Your task to perform on an android device: turn on priority inbox in the gmail app Image 0: 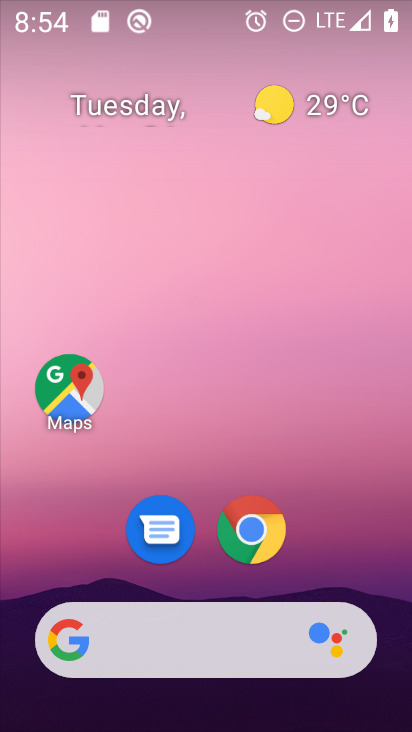
Step 0: drag from (392, 628) to (284, 21)
Your task to perform on an android device: turn on priority inbox in the gmail app Image 1: 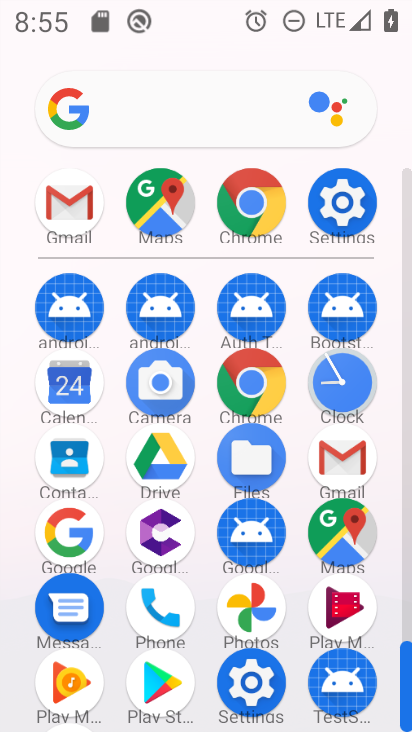
Step 1: click (338, 445)
Your task to perform on an android device: turn on priority inbox in the gmail app Image 2: 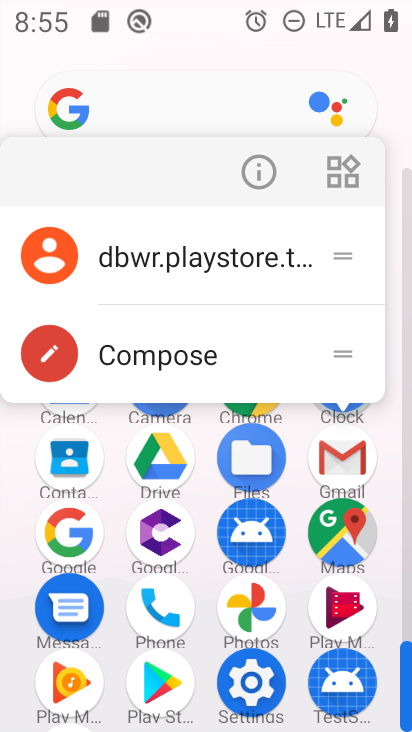
Step 2: click (334, 447)
Your task to perform on an android device: turn on priority inbox in the gmail app Image 3: 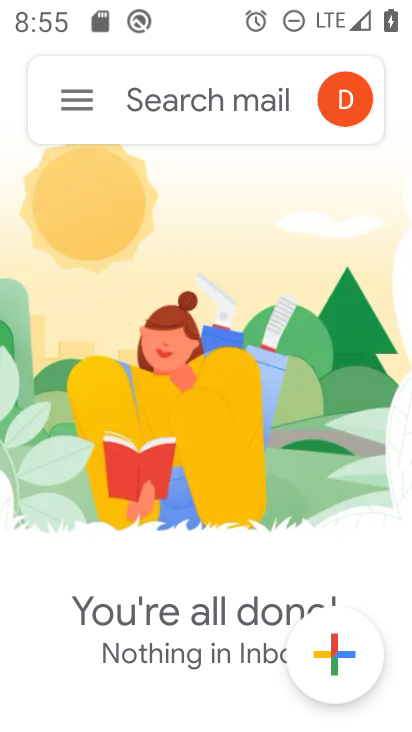
Step 3: click (60, 100)
Your task to perform on an android device: turn on priority inbox in the gmail app Image 4: 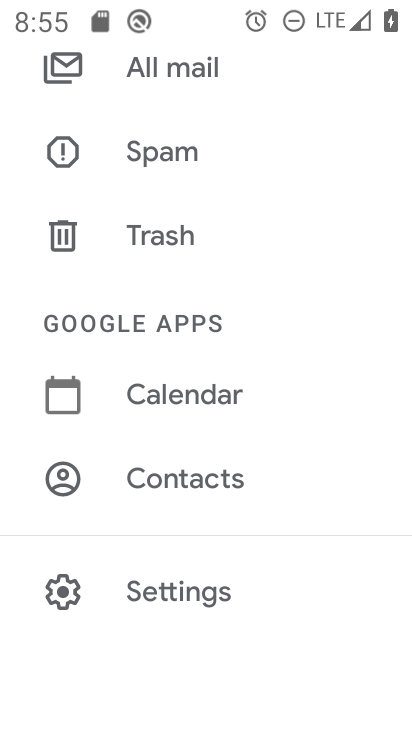
Step 4: click (189, 576)
Your task to perform on an android device: turn on priority inbox in the gmail app Image 5: 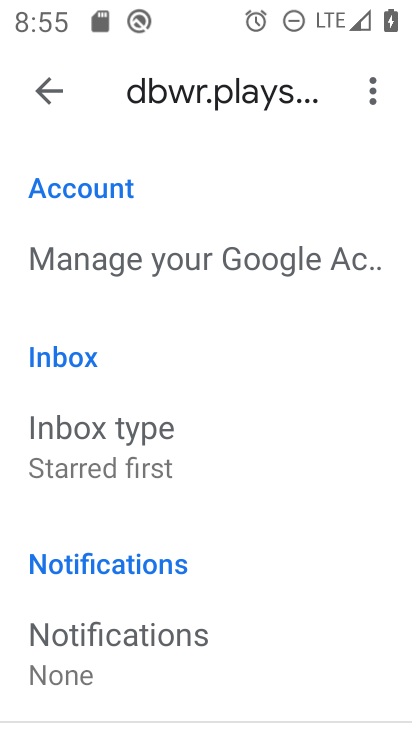
Step 5: click (133, 453)
Your task to perform on an android device: turn on priority inbox in the gmail app Image 6: 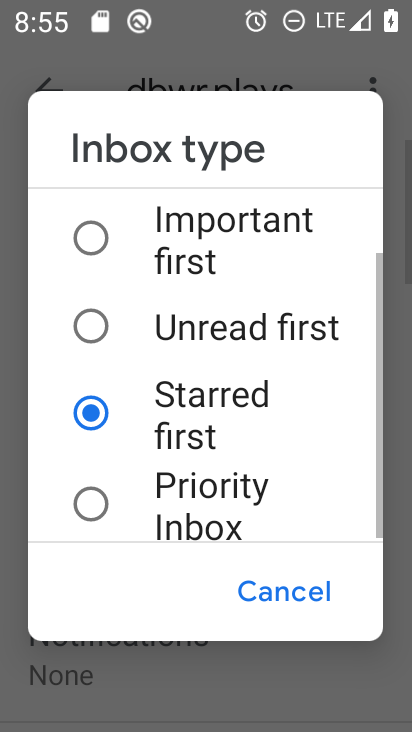
Step 6: drag from (139, 514) to (183, 139)
Your task to perform on an android device: turn on priority inbox in the gmail app Image 7: 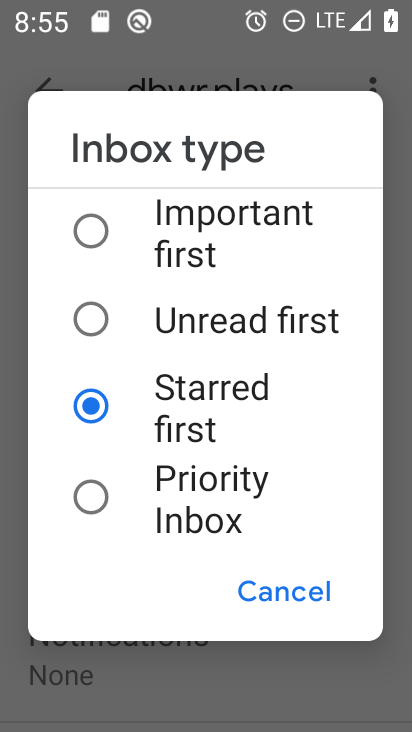
Step 7: click (91, 494)
Your task to perform on an android device: turn on priority inbox in the gmail app Image 8: 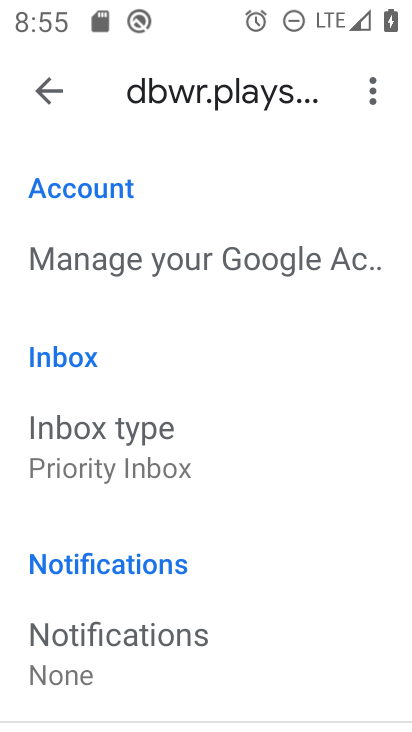
Step 8: task complete